Your task to perform on an android device: turn on sleep mode Image 0: 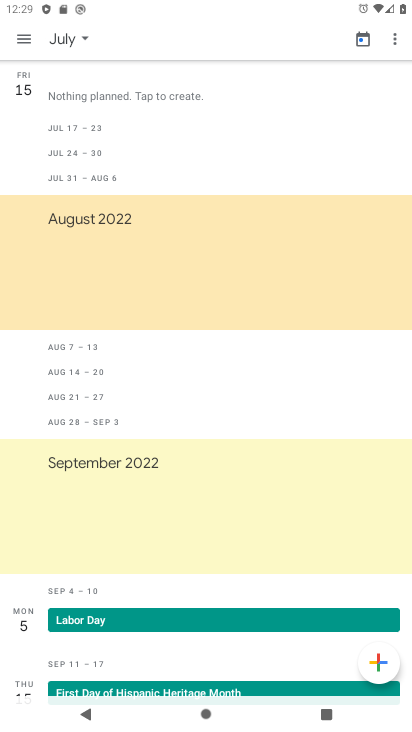
Step 0: press home button
Your task to perform on an android device: turn on sleep mode Image 1: 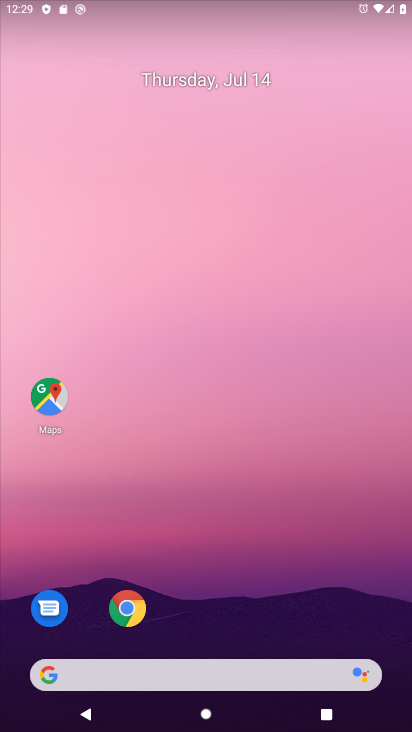
Step 1: drag from (250, 665) to (254, 144)
Your task to perform on an android device: turn on sleep mode Image 2: 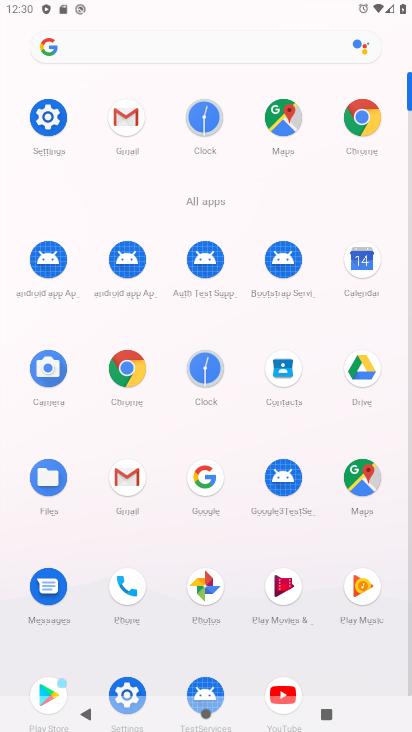
Step 2: click (44, 118)
Your task to perform on an android device: turn on sleep mode Image 3: 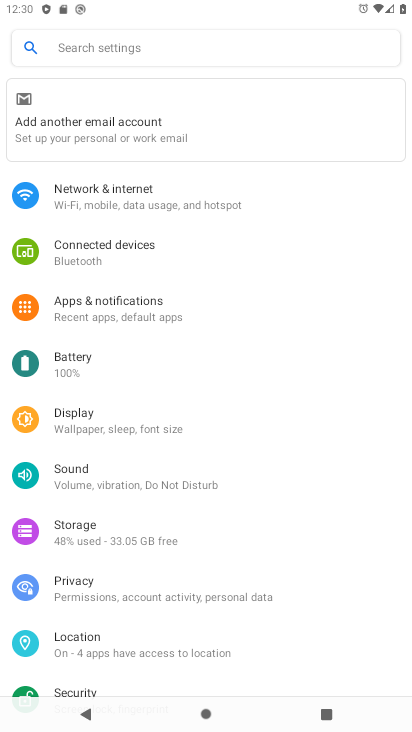
Step 3: click (73, 418)
Your task to perform on an android device: turn on sleep mode Image 4: 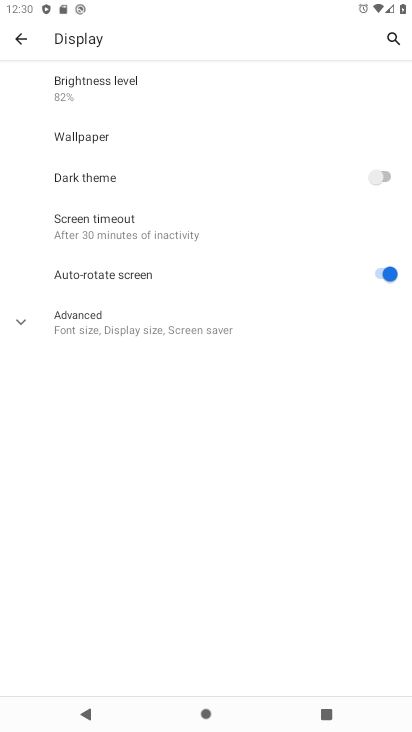
Step 4: click (94, 328)
Your task to perform on an android device: turn on sleep mode Image 5: 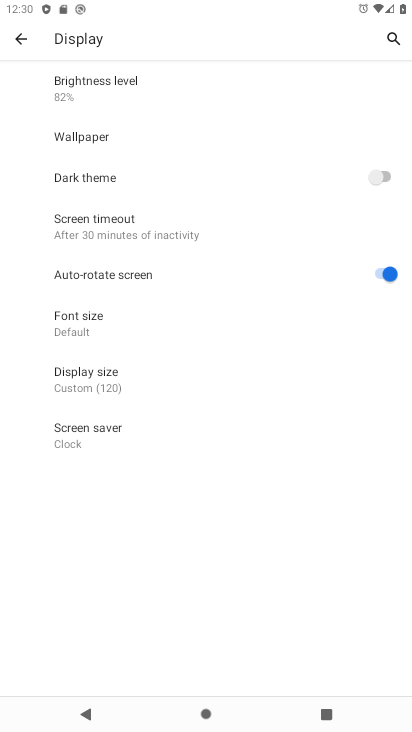
Step 5: click (151, 234)
Your task to perform on an android device: turn on sleep mode Image 6: 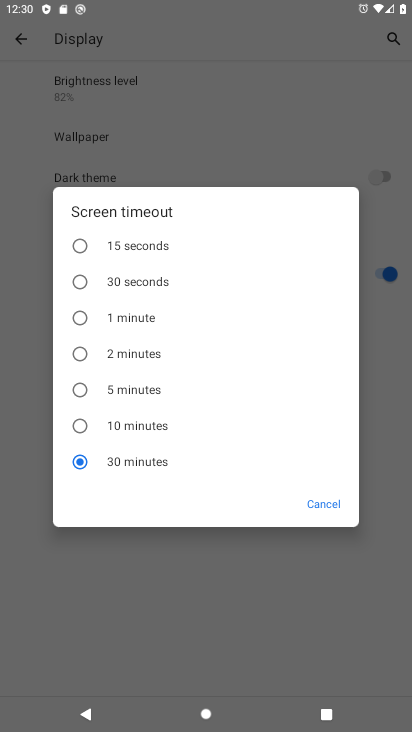
Step 6: click (336, 497)
Your task to perform on an android device: turn on sleep mode Image 7: 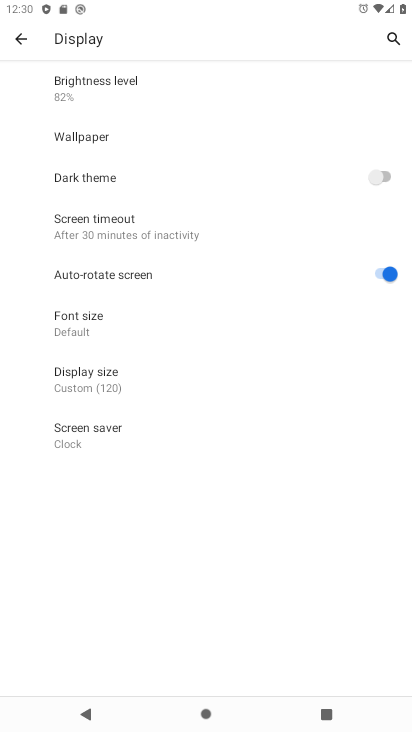
Step 7: task complete